Your task to perform on an android device: open wifi settings Image 0: 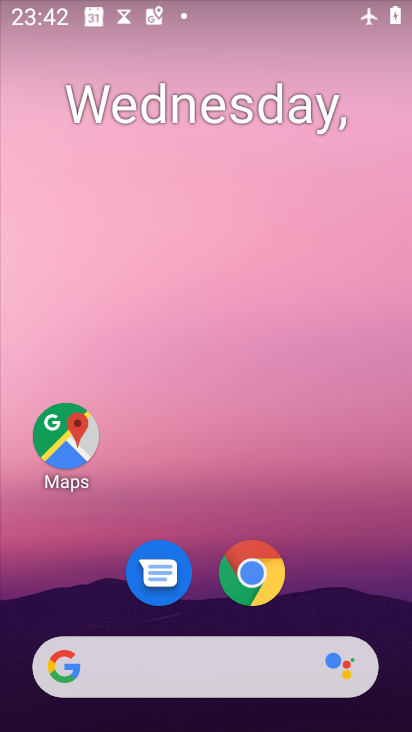
Step 0: drag from (334, 531) to (297, 200)
Your task to perform on an android device: open wifi settings Image 1: 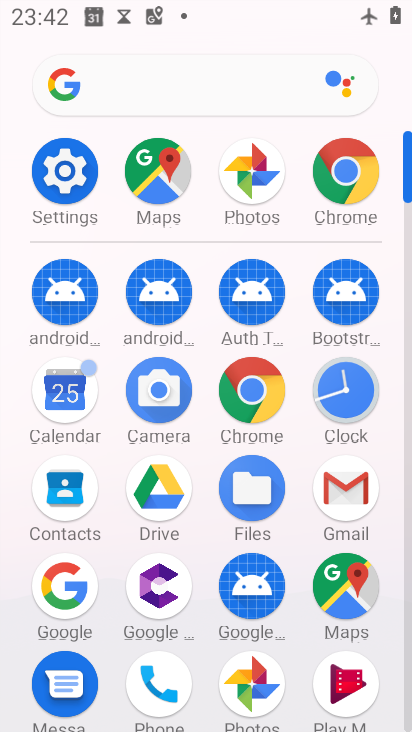
Step 1: click (69, 169)
Your task to perform on an android device: open wifi settings Image 2: 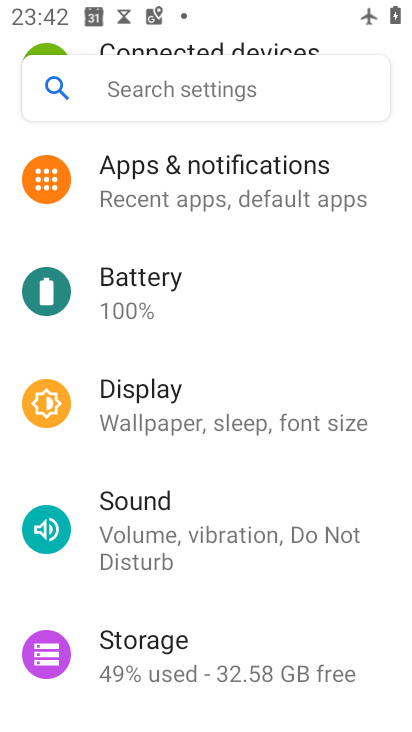
Step 2: drag from (203, 178) to (188, 533)
Your task to perform on an android device: open wifi settings Image 3: 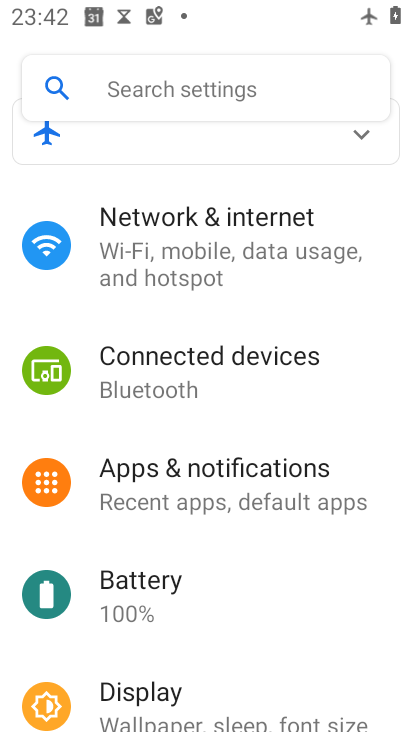
Step 3: click (200, 226)
Your task to perform on an android device: open wifi settings Image 4: 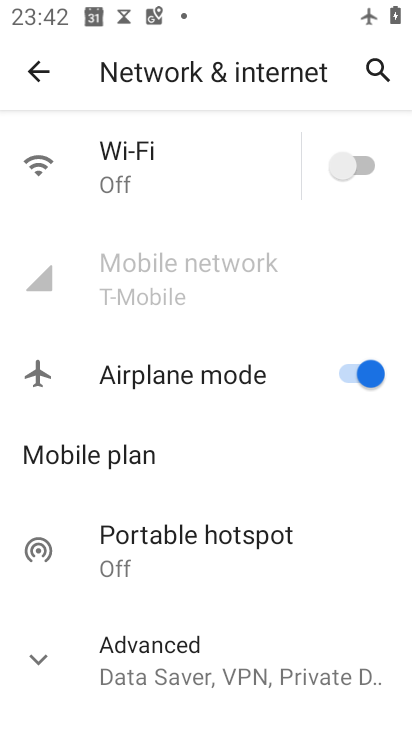
Step 4: click (174, 163)
Your task to perform on an android device: open wifi settings Image 5: 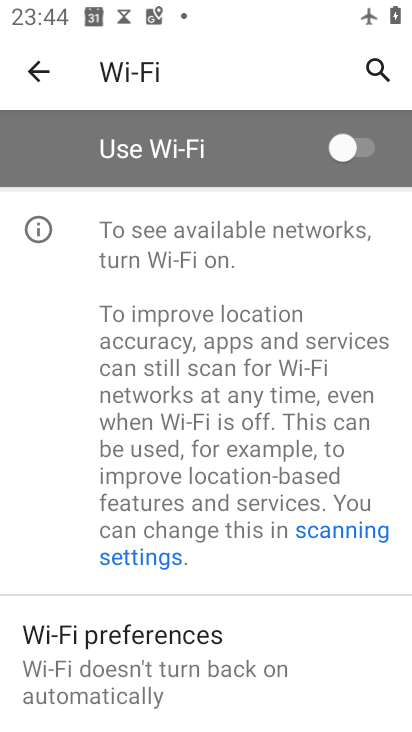
Step 5: task complete